Your task to perform on an android device: open app "Flipkart Online Shopping App" (install if not already installed) Image 0: 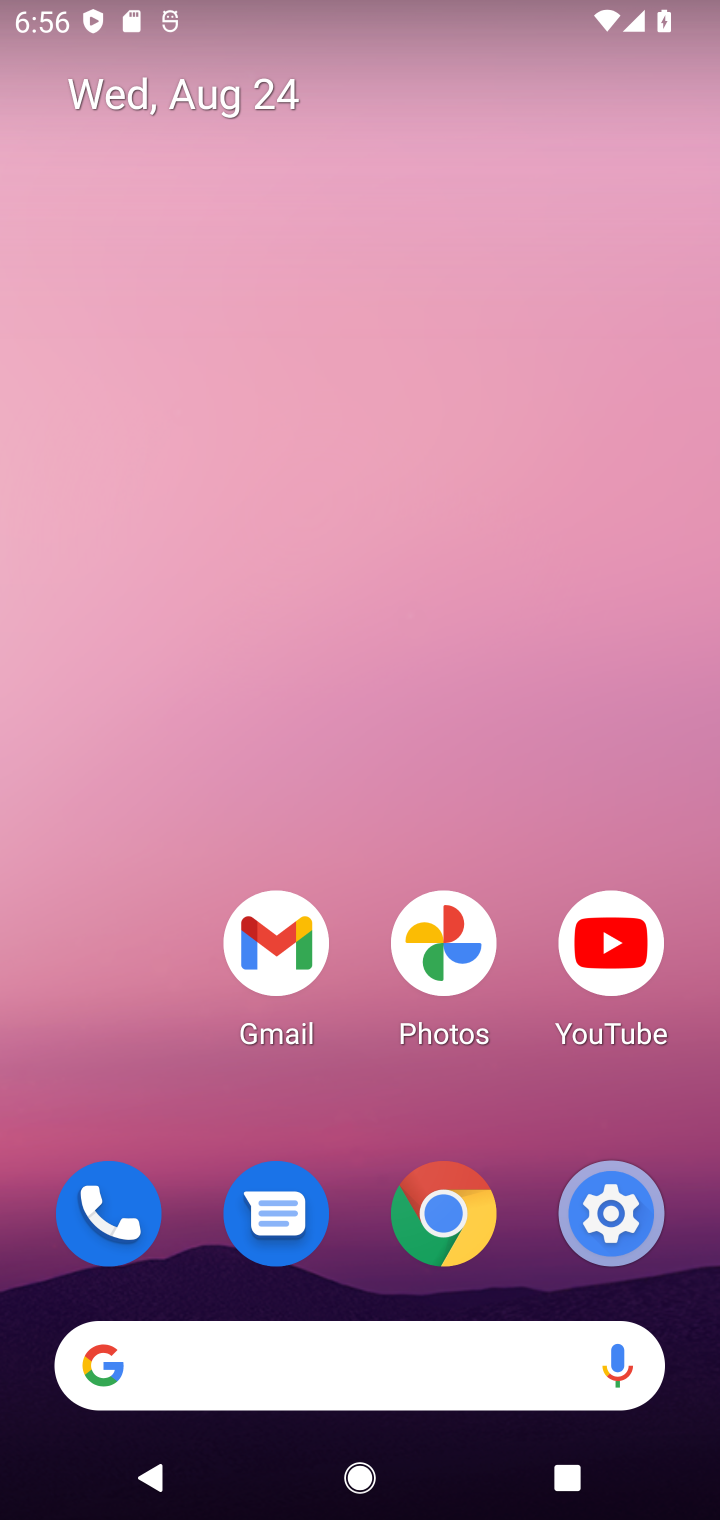
Step 0: press home button
Your task to perform on an android device: open app "Flipkart Online Shopping App" (install if not already installed) Image 1: 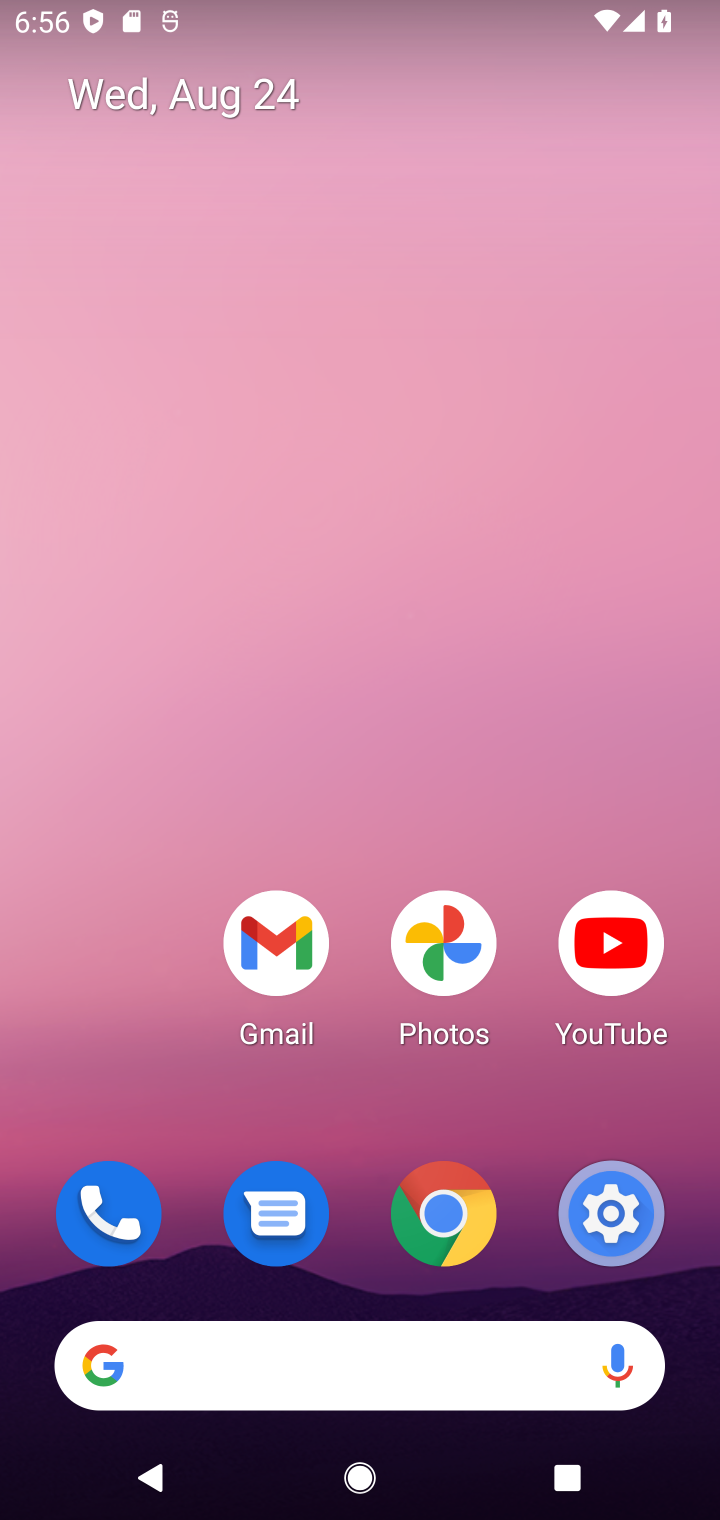
Step 1: drag from (359, 1142) to (407, 241)
Your task to perform on an android device: open app "Flipkart Online Shopping App" (install if not already installed) Image 2: 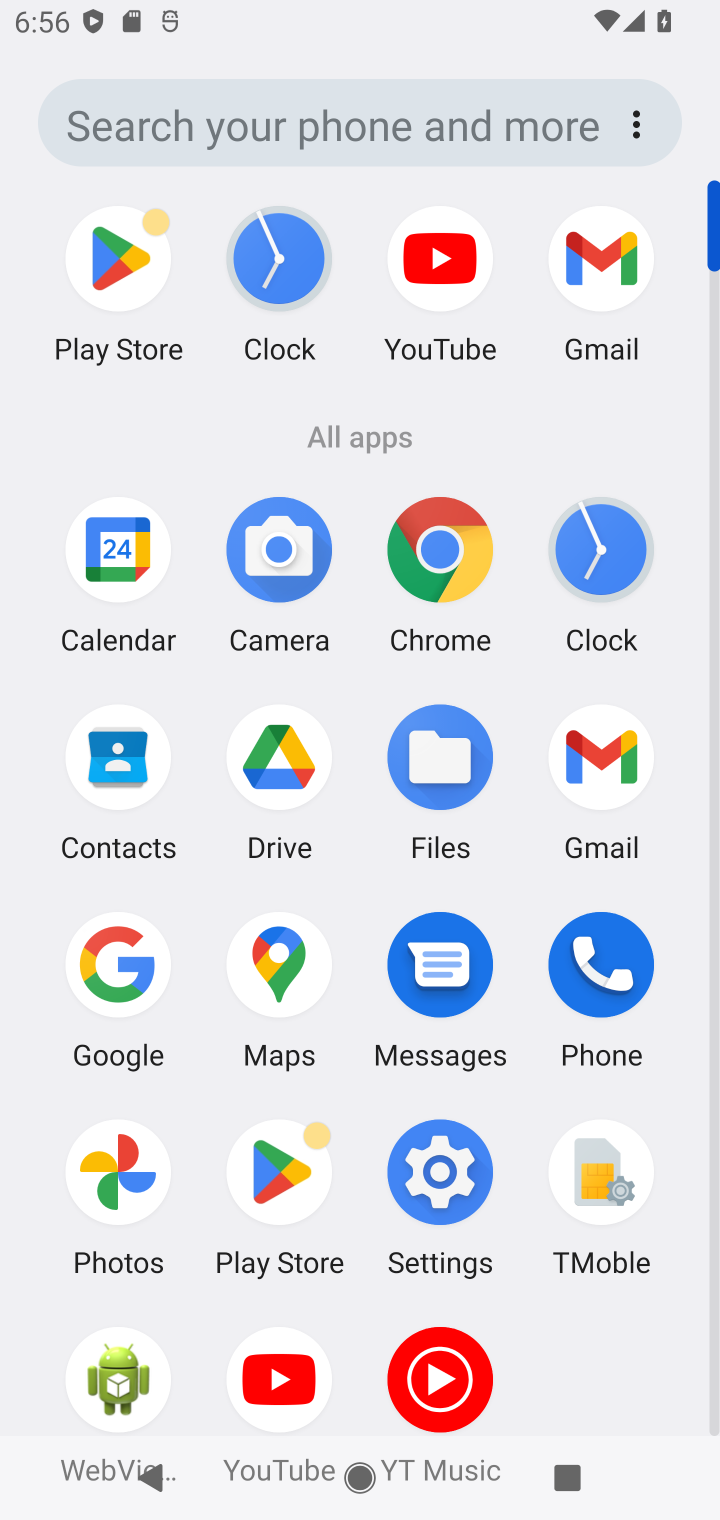
Step 2: click (112, 244)
Your task to perform on an android device: open app "Flipkart Online Shopping App" (install if not already installed) Image 3: 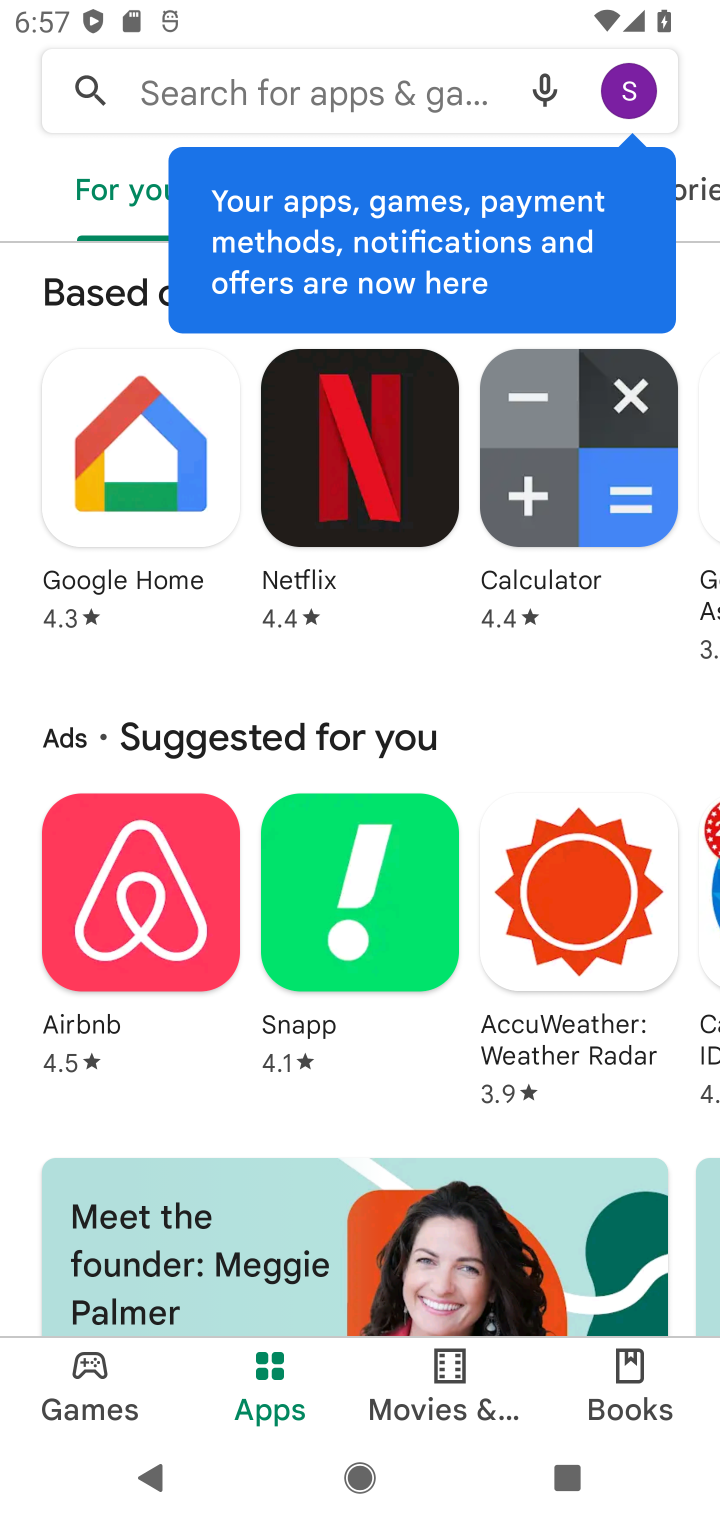
Step 3: click (222, 74)
Your task to perform on an android device: open app "Flipkart Online Shopping App" (install if not already installed) Image 4: 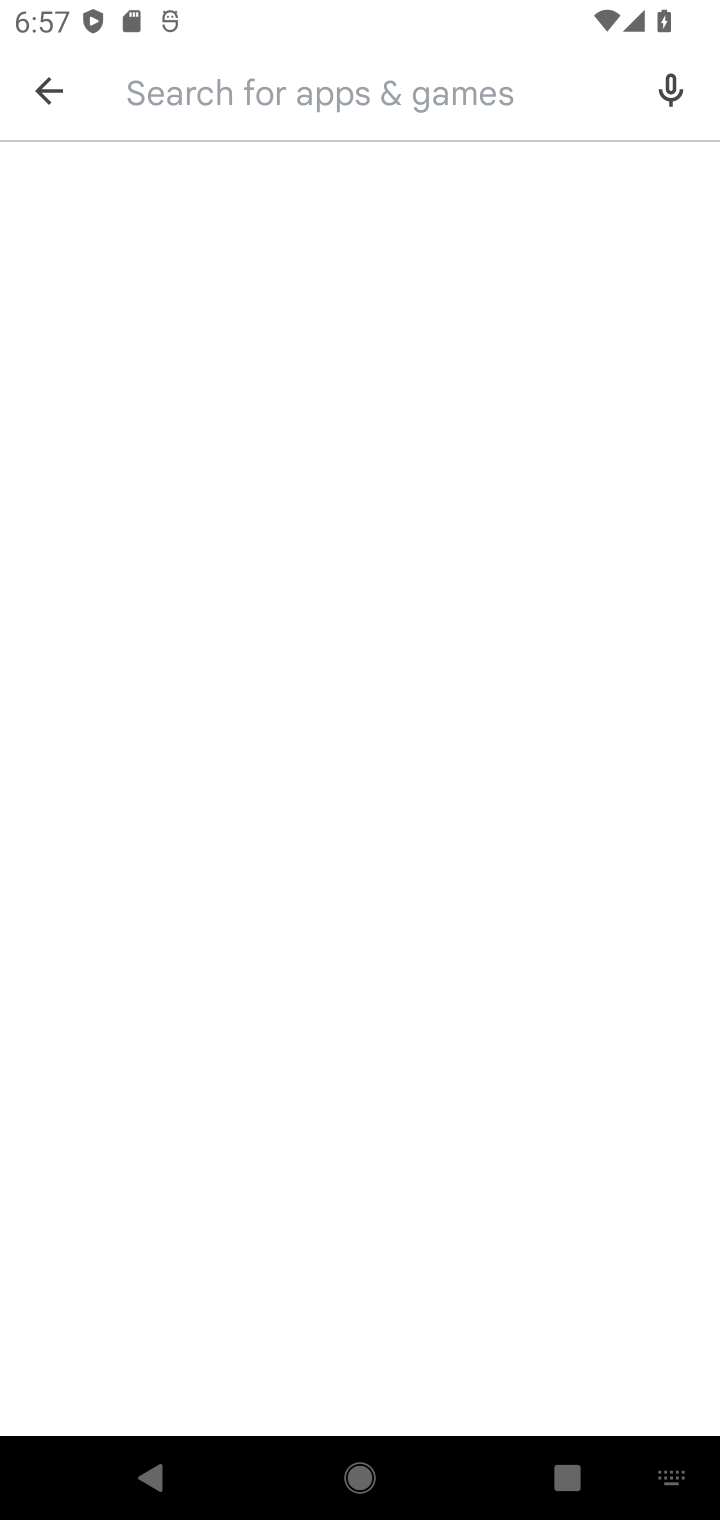
Step 4: type "Flipkart Online Shopping App"
Your task to perform on an android device: open app "Flipkart Online Shopping App" (install if not already installed) Image 5: 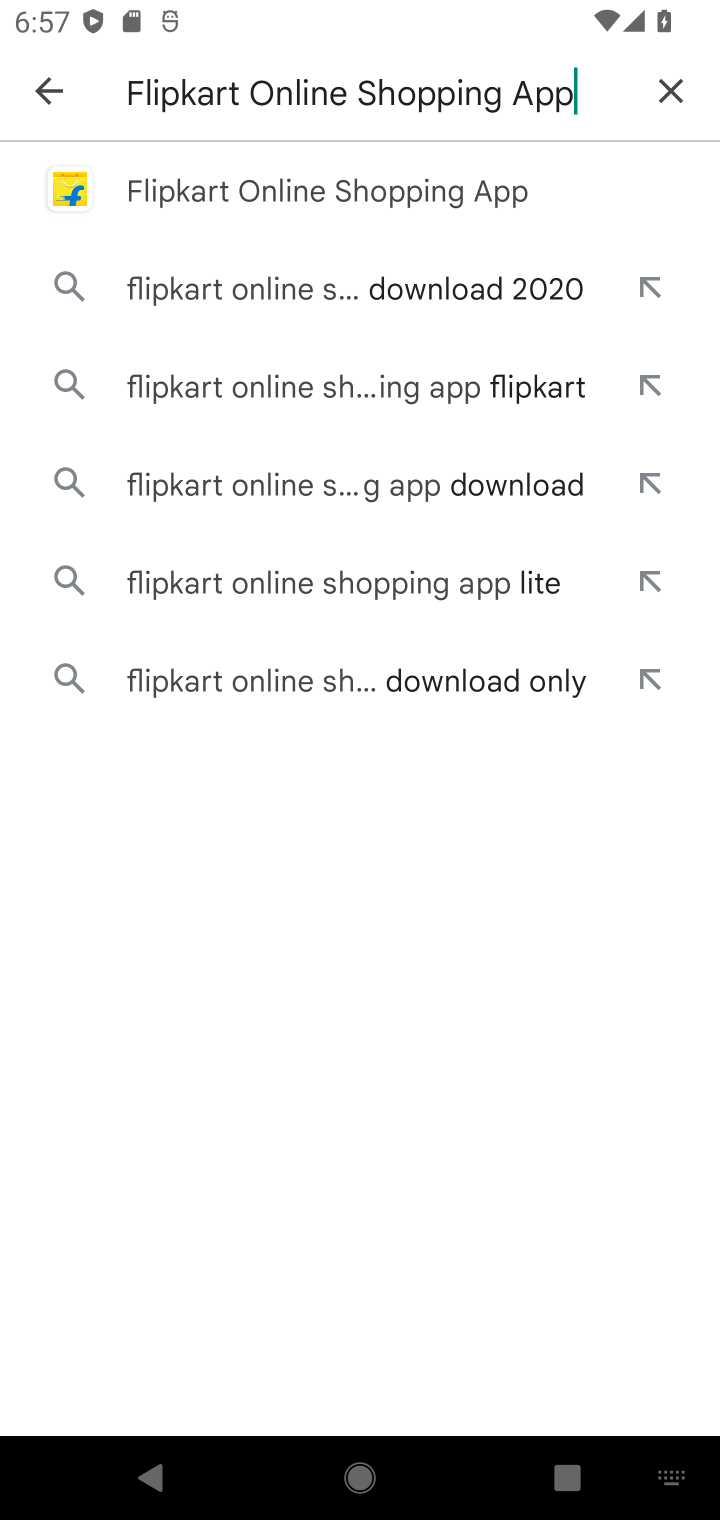
Step 5: click (98, 180)
Your task to perform on an android device: open app "Flipkart Online Shopping App" (install if not already installed) Image 6: 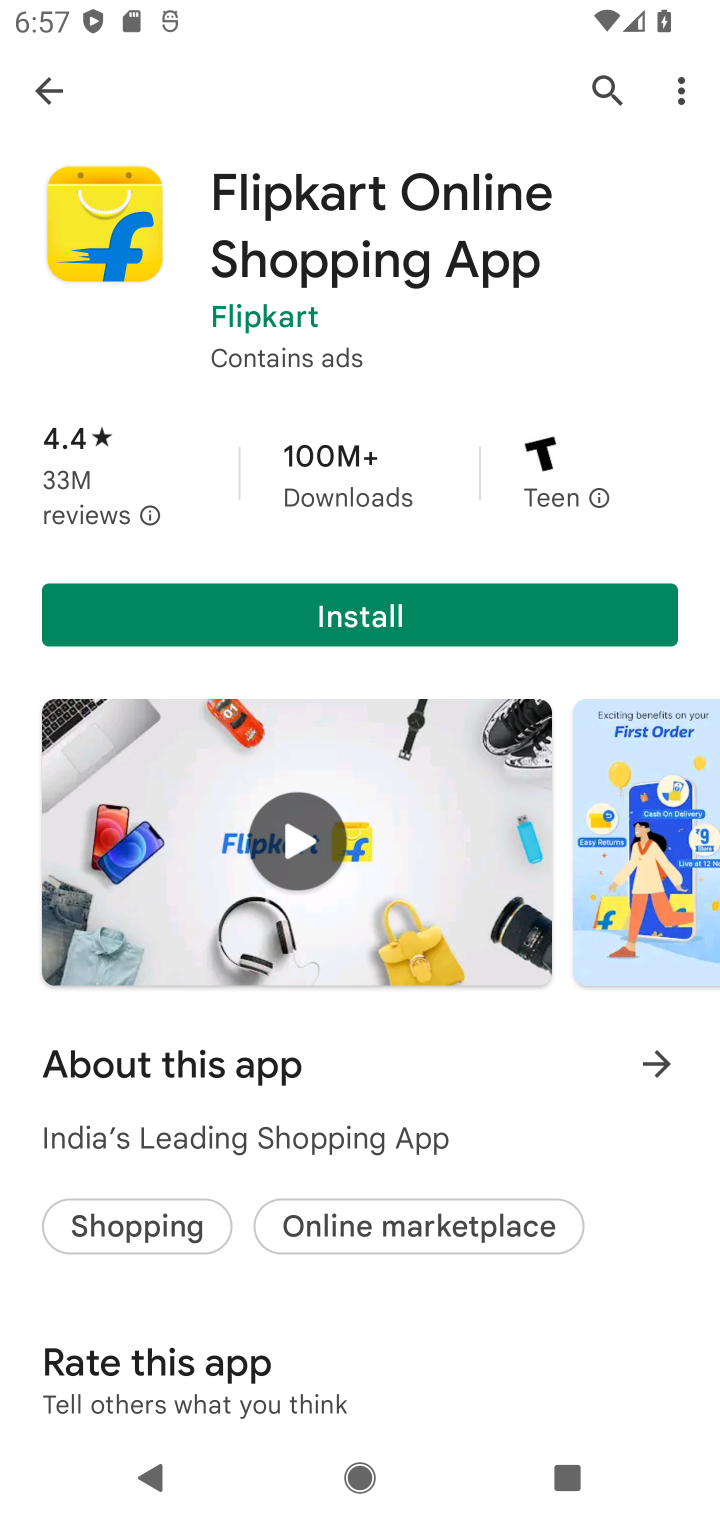
Step 6: click (356, 608)
Your task to perform on an android device: open app "Flipkart Online Shopping App" (install if not already installed) Image 7: 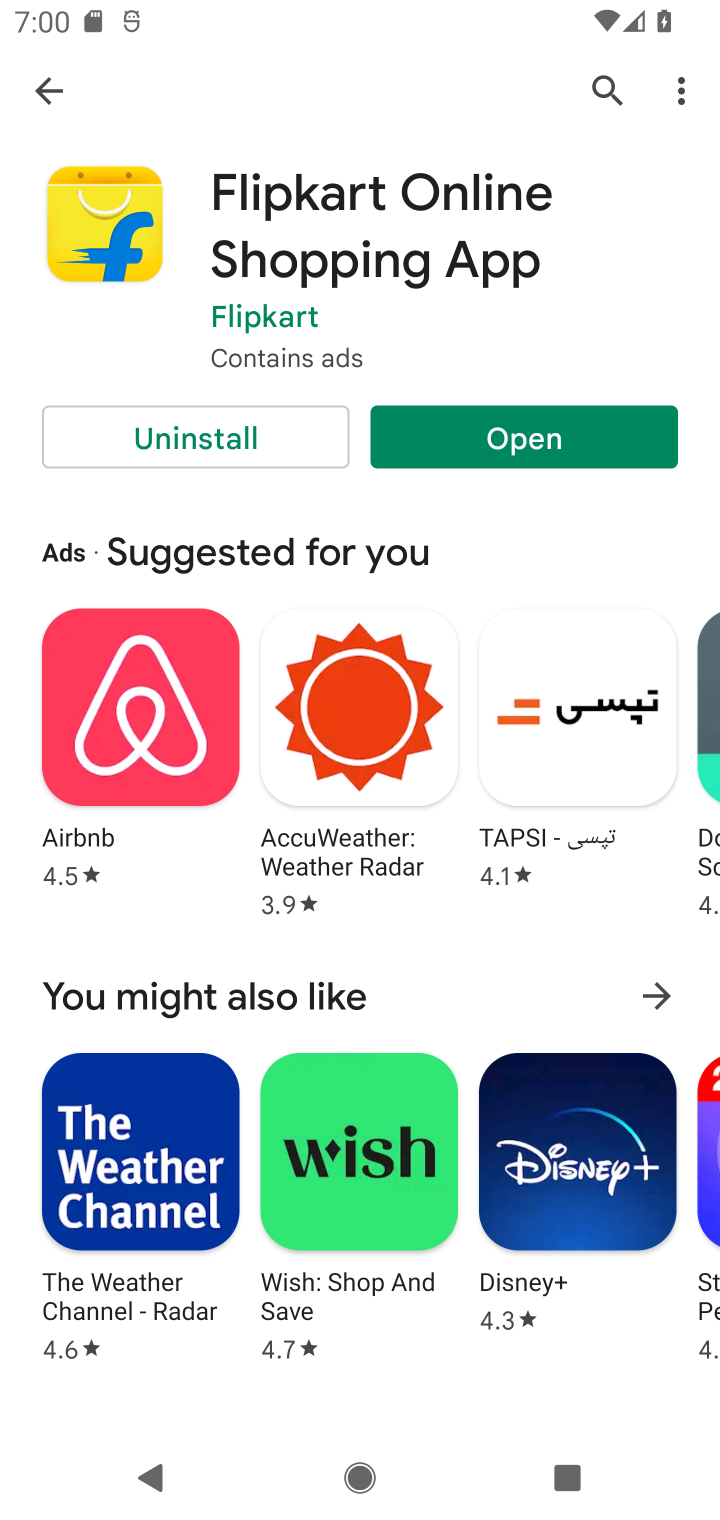
Step 7: click (499, 437)
Your task to perform on an android device: open app "Flipkart Online Shopping App" (install if not already installed) Image 8: 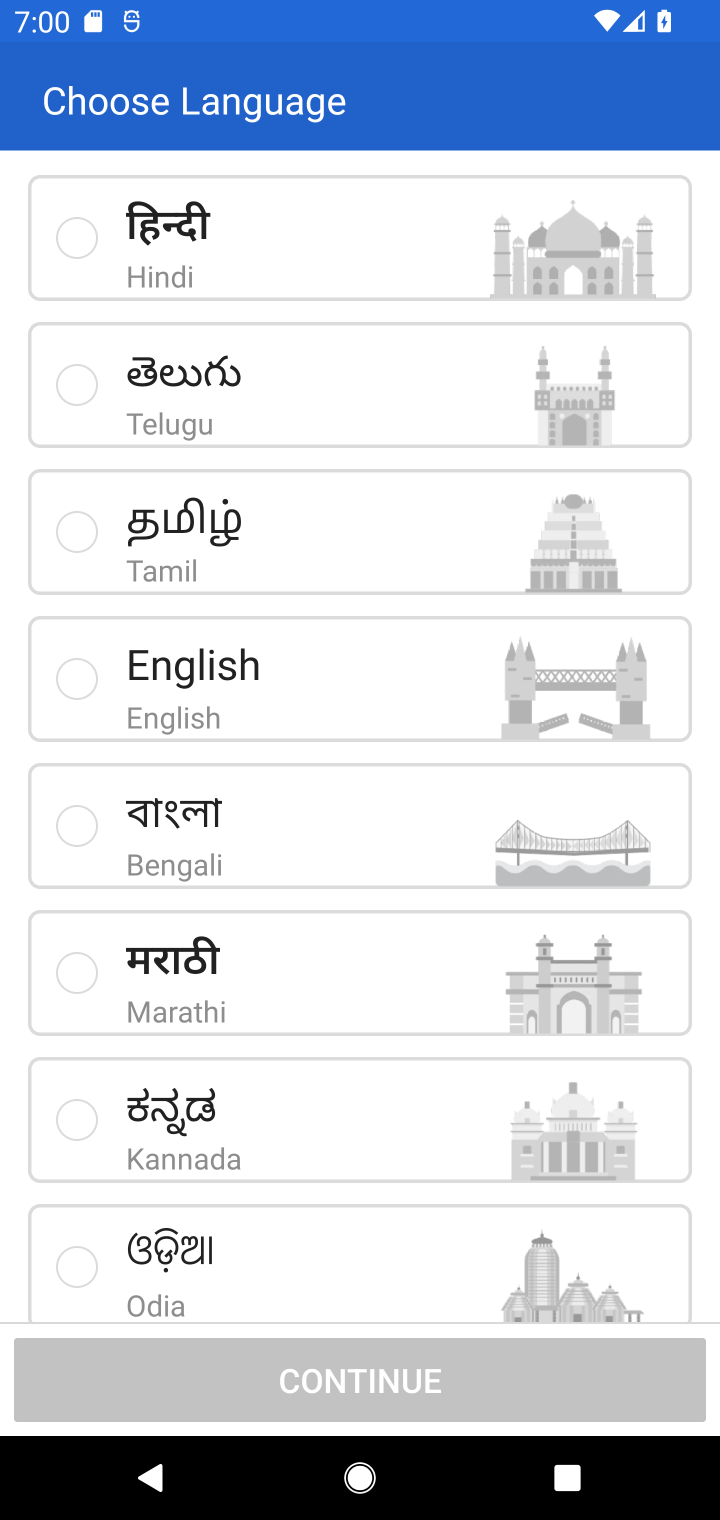
Step 8: click (69, 672)
Your task to perform on an android device: open app "Flipkart Online Shopping App" (install if not already installed) Image 9: 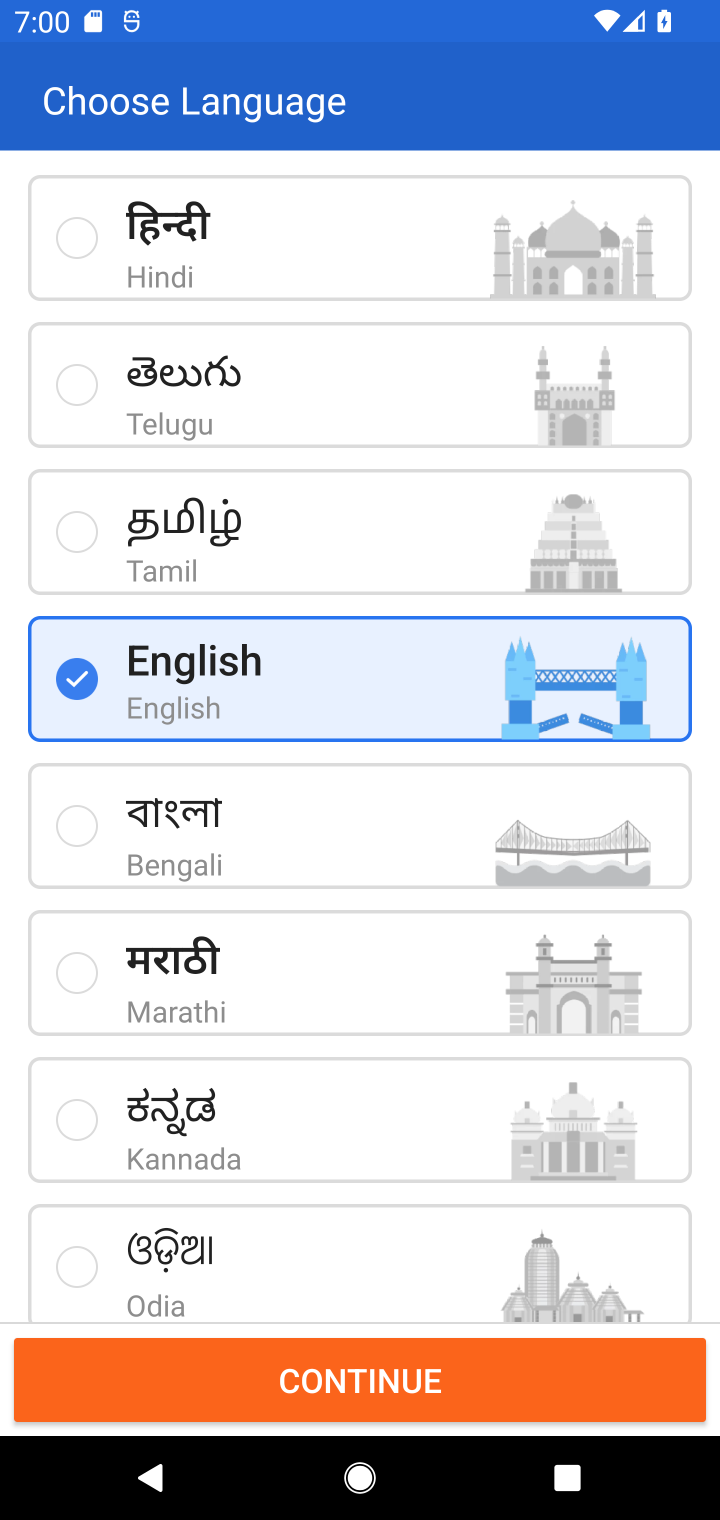
Step 9: click (358, 1373)
Your task to perform on an android device: open app "Flipkart Online Shopping App" (install if not already installed) Image 10: 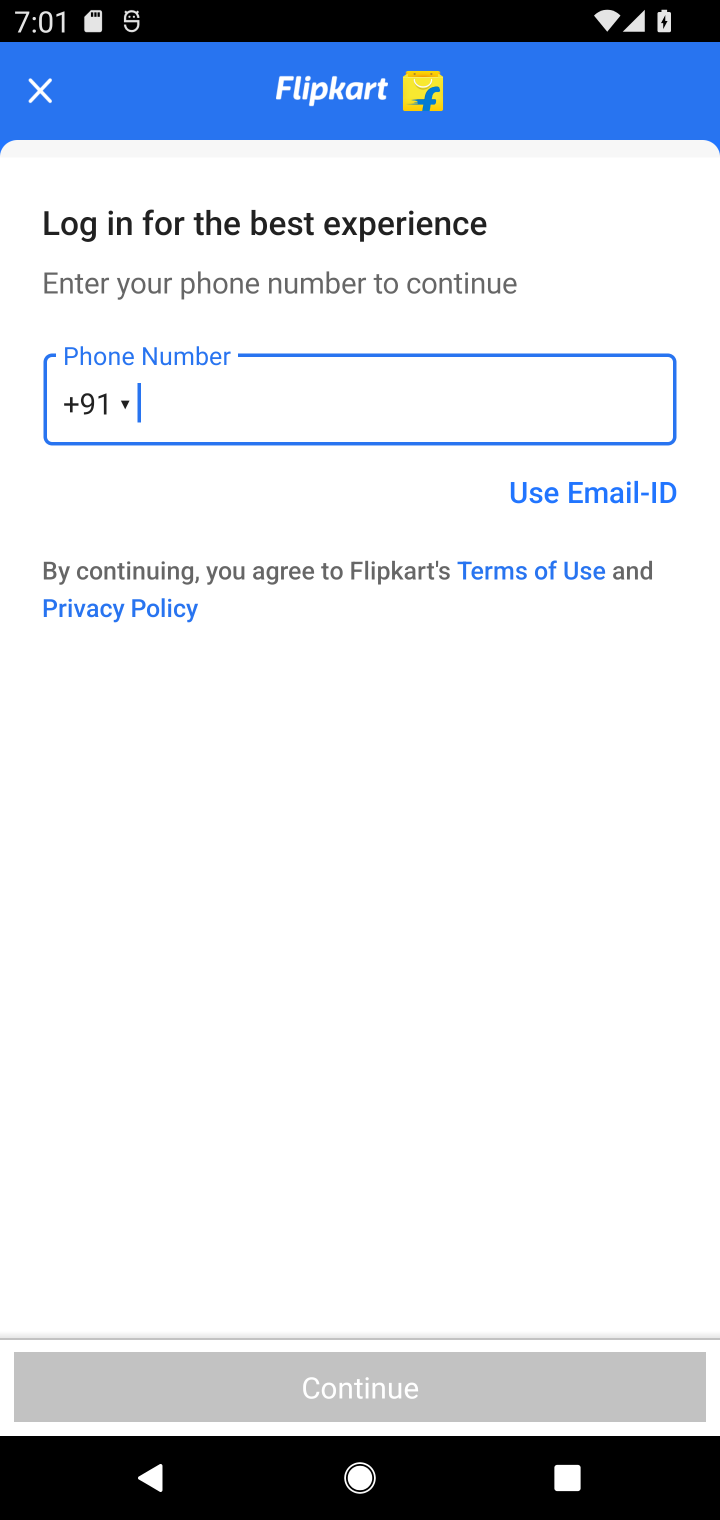
Step 10: task complete